Your task to perform on an android device: Go to Android settings Image 0: 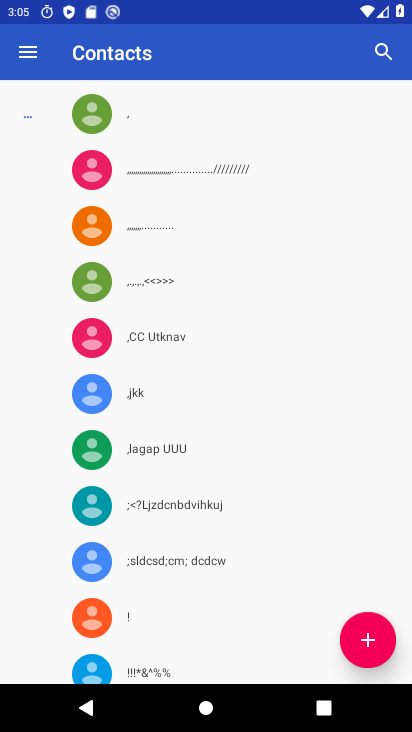
Step 0: press home button
Your task to perform on an android device: Go to Android settings Image 1: 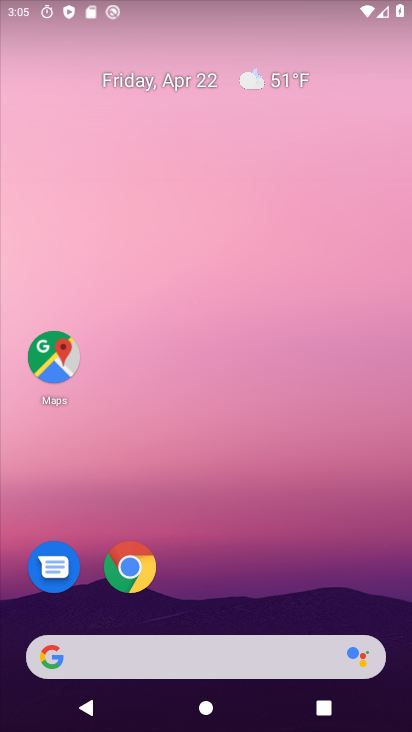
Step 1: drag from (266, 532) to (245, 143)
Your task to perform on an android device: Go to Android settings Image 2: 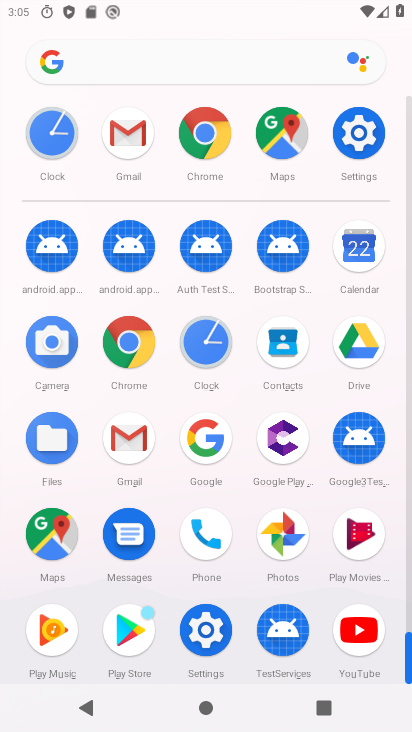
Step 2: click (366, 142)
Your task to perform on an android device: Go to Android settings Image 3: 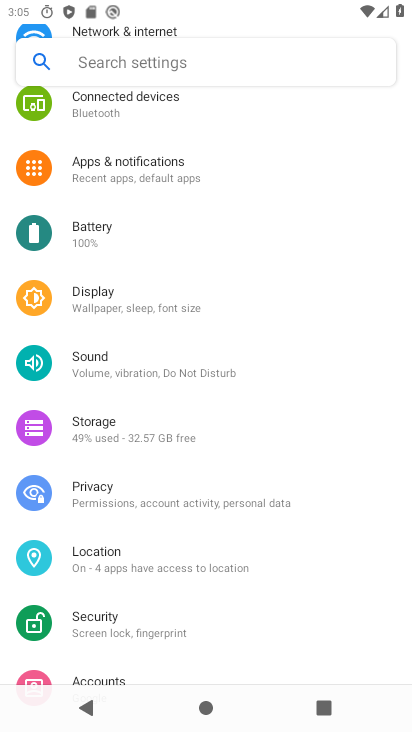
Step 3: drag from (258, 389) to (261, 176)
Your task to perform on an android device: Go to Android settings Image 4: 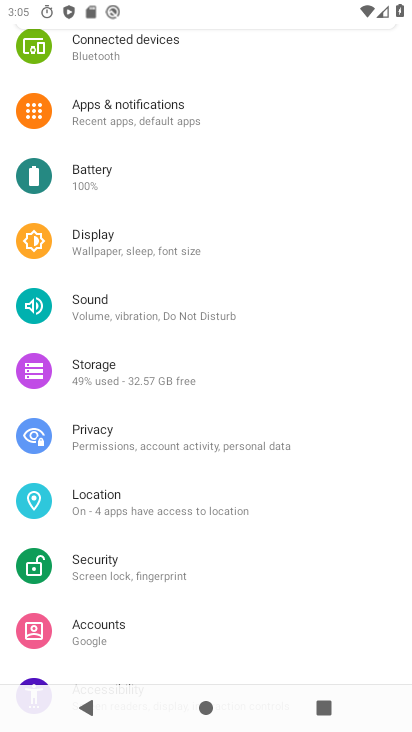
Step 4: drag from (202, 599) to (246, 172)
Your task to perform on an android device: Go to Android settings Image 5: 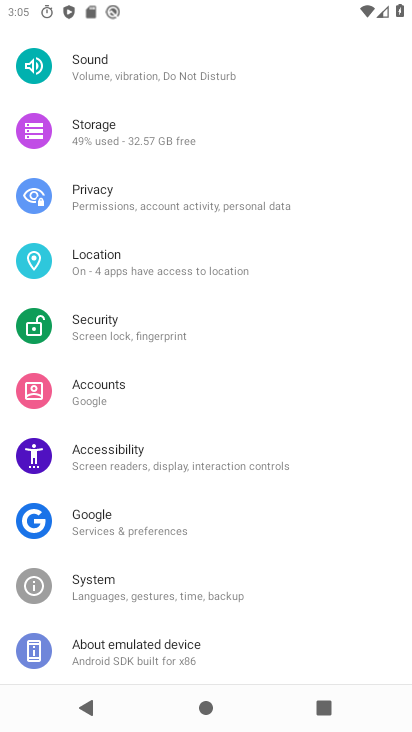
Step 5: click (182, 649)
Your task to perform on an android device: Go to Android settings Image 6: 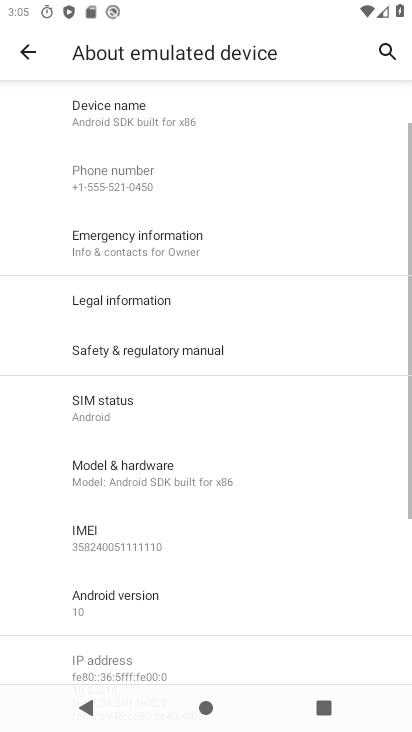
Step 6: drag from (199, 581) to (235, 329)
Your task to perform on an android device: Go to Android settings Image 7: 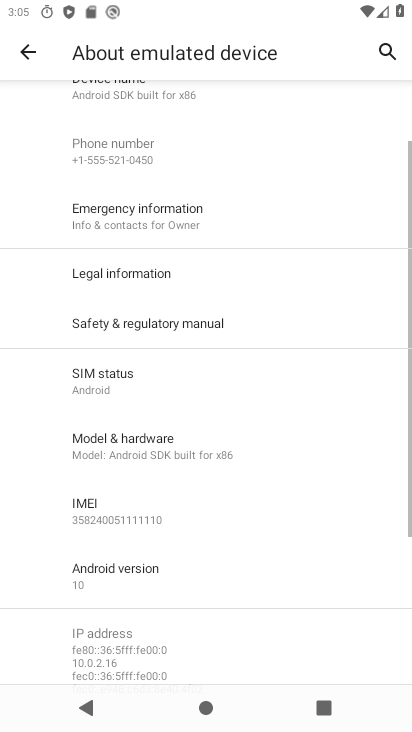
Step 7: click (185, 563)
Your task to perform on an android device: Go to Android settings Image 8: 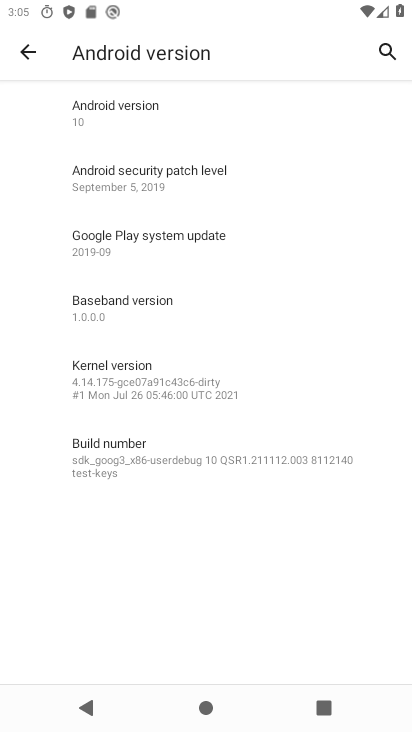
Step 8: task complete